Your task to perform on an android device: open chrome privacy settings Image 0: 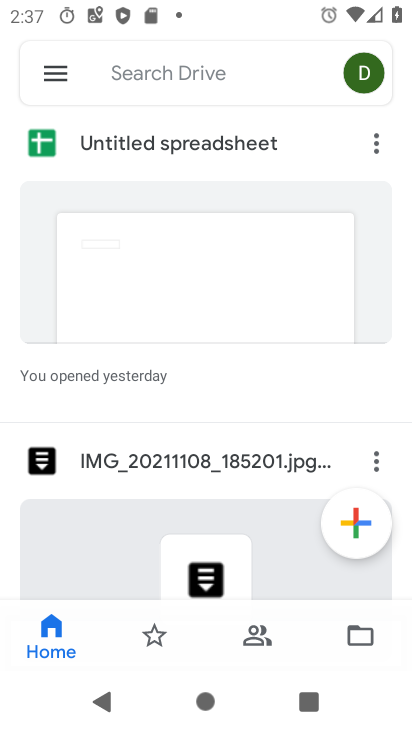
Step 0: press home button
Your task to perform on an android device: open chrome privacy settings Image 1: 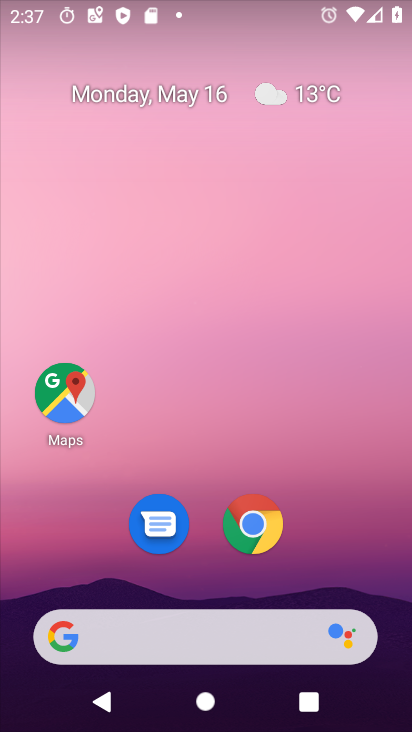
Step 1: click (268, 514)
Your task to perform on an android device: open chrome privacy settings Image 2: 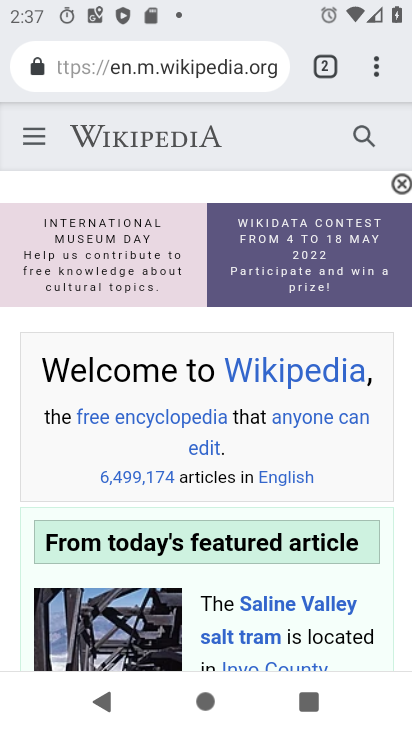
Step 2: click (375, 67)
Your task to perform on an android device: open chrome privacy settings Image 3: 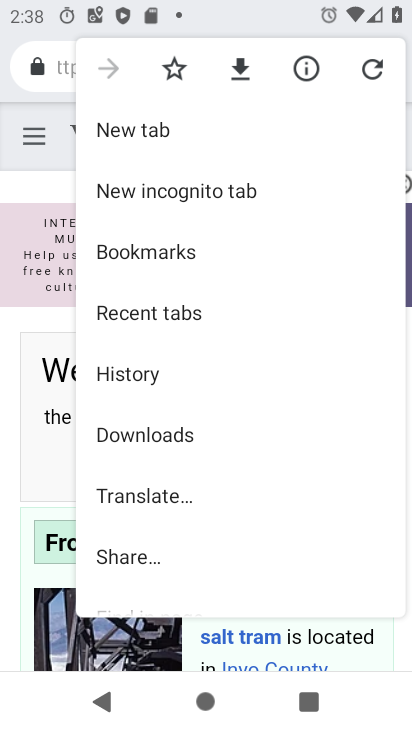
Step 3: drag from (262, 479) to (271, 196)
Your task to perform on an android device: open chrome privacy settings Image 4: 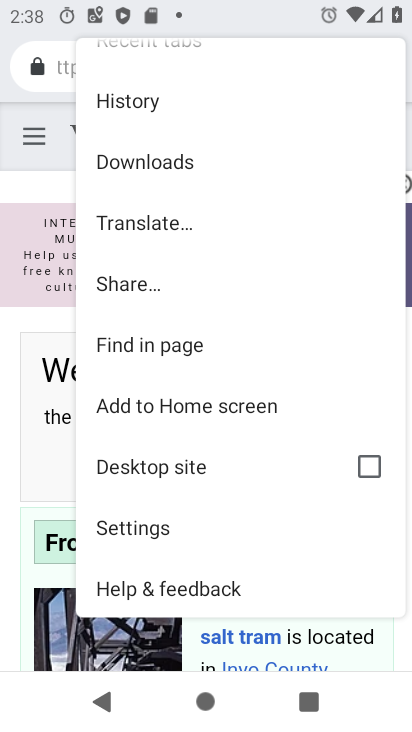
Step 4: click (186, 518)
Your task to perform on an android device: open chrome privacy settings Image 5: 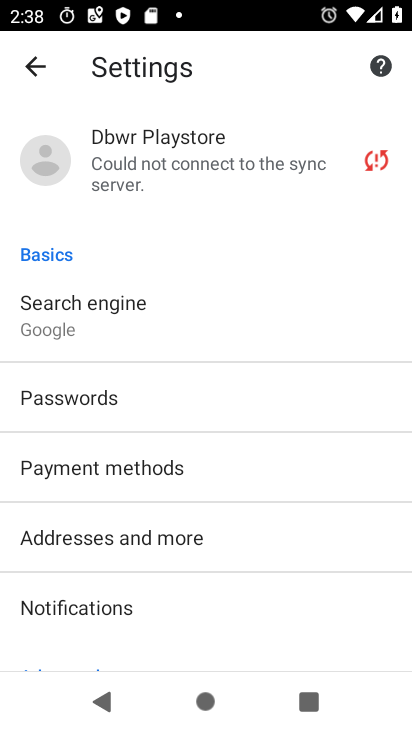
Step 5: drag from (246, 533) to (262, 220)
Your task to perform on an android device: open chrome privacy settings Image 6: 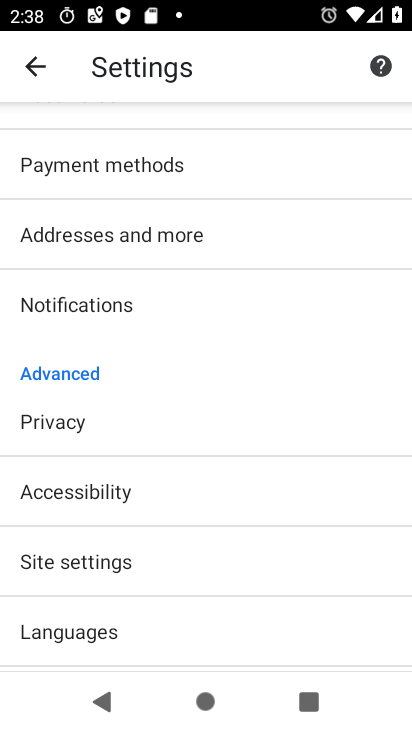
Step 6: click (127, 426)
Your task to perform on an android device: open chrome privacy settings Image 7: 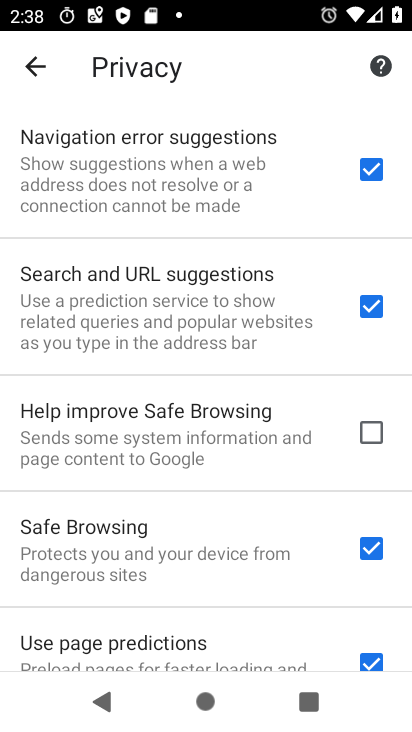
Step 7: task complete